Your task to perform on an android device: turn on location history Image 0: 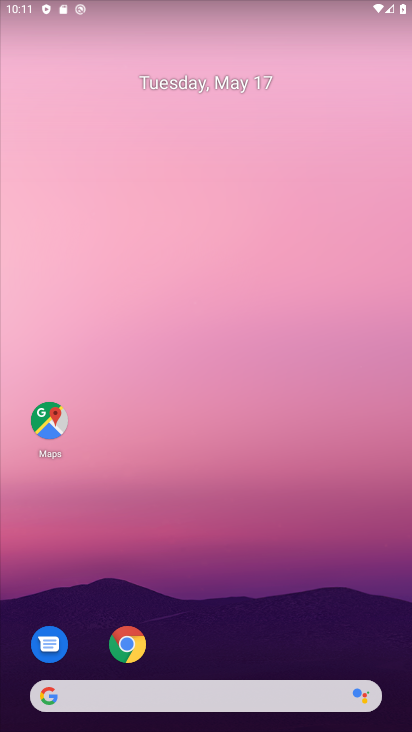
Step 0: drag from (179, 651) to (232, 166)
Your task to perform on an android device: turn on location history Image 1: 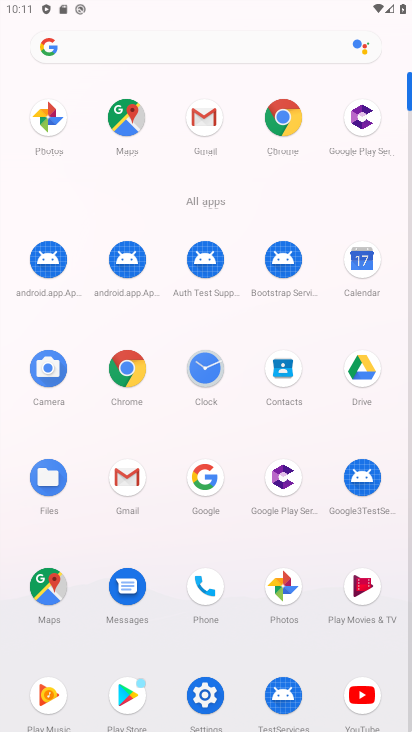
Step 1: click (199, 697)
Your task to perform on an android device: turn on location history Image 2: 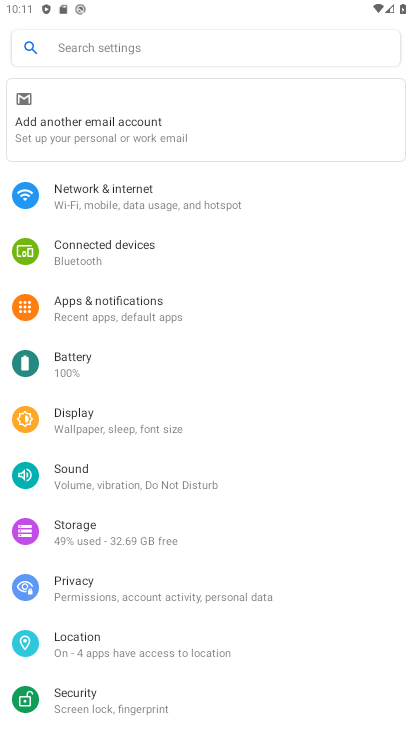
Step 2: click (101, 644)
Your task to perform on an android device: turn on location history Image 3: 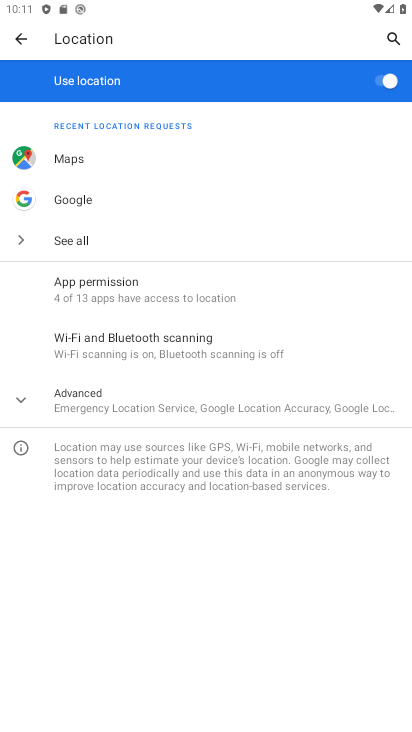
Step 3: click (212, 399)
Your task to perform on an android device: turn on location history Image 4: 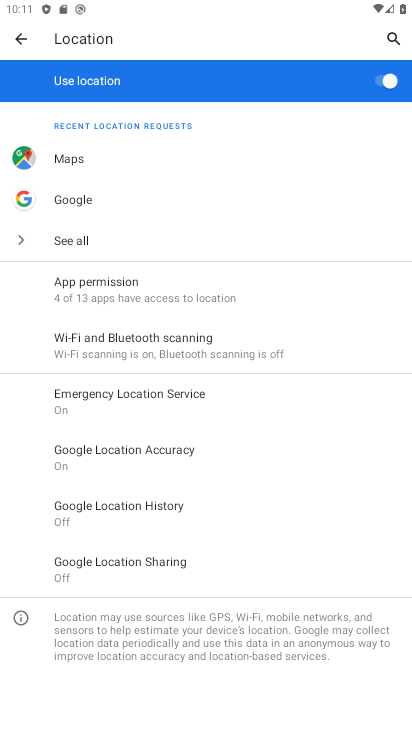
Step 4: click (204, 511)
Your task to perform on an android device: turn on location history Image 5: 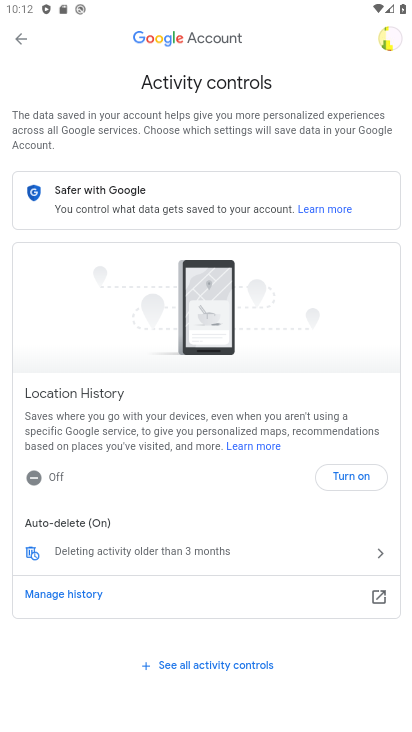
Step 5: click (367, 481)
Your task to perform on an android device: turn on location history Image 6: 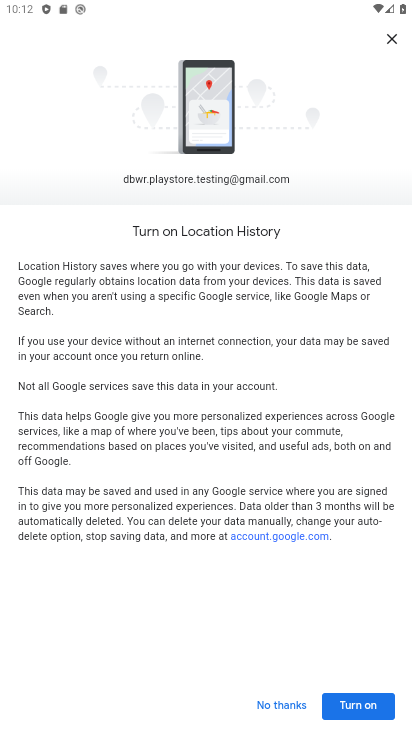
Step 6: click (352, 716)
Your task to perform on an android device: turn on location history Image 7: 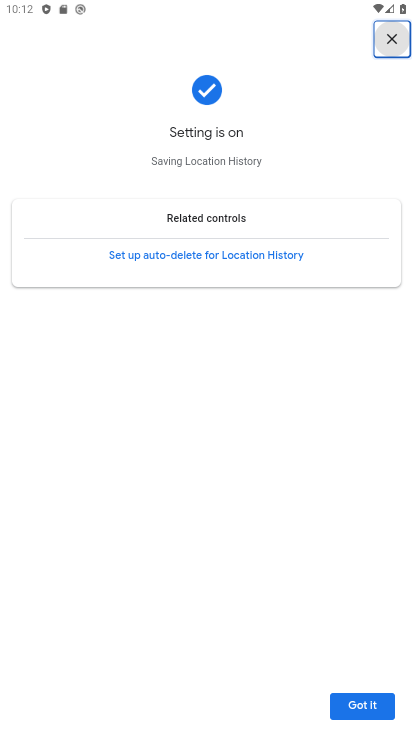
Step 7: click (362, 707)
Your task to perform on an android device: turn on location history Image 8: 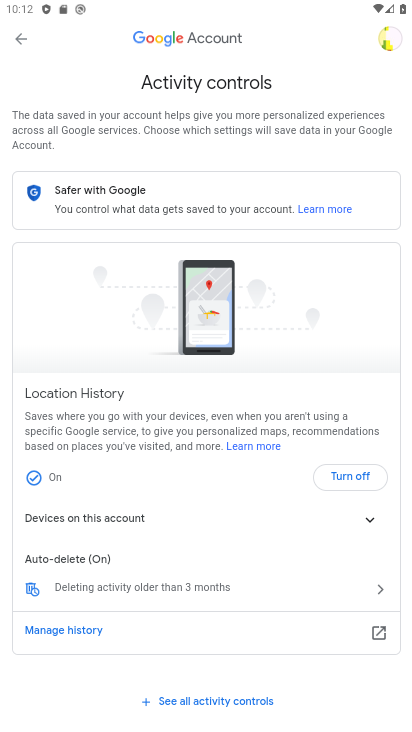
Step 8: task complete